Your task to perform on an android device: open sync settings in chrome Image 0: 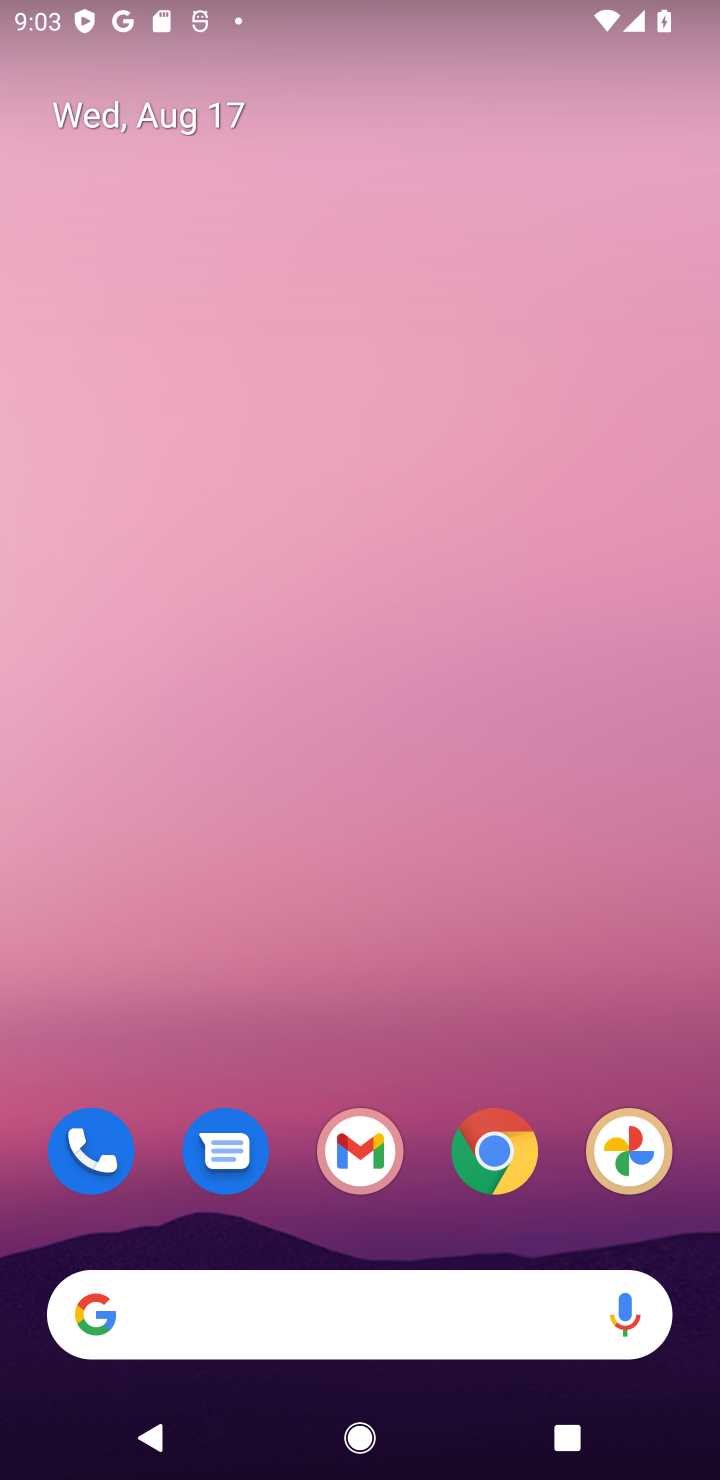
Step 0: click (493, 1154)
Your task to perform on an android device: open sync settings in chrome Image 1: 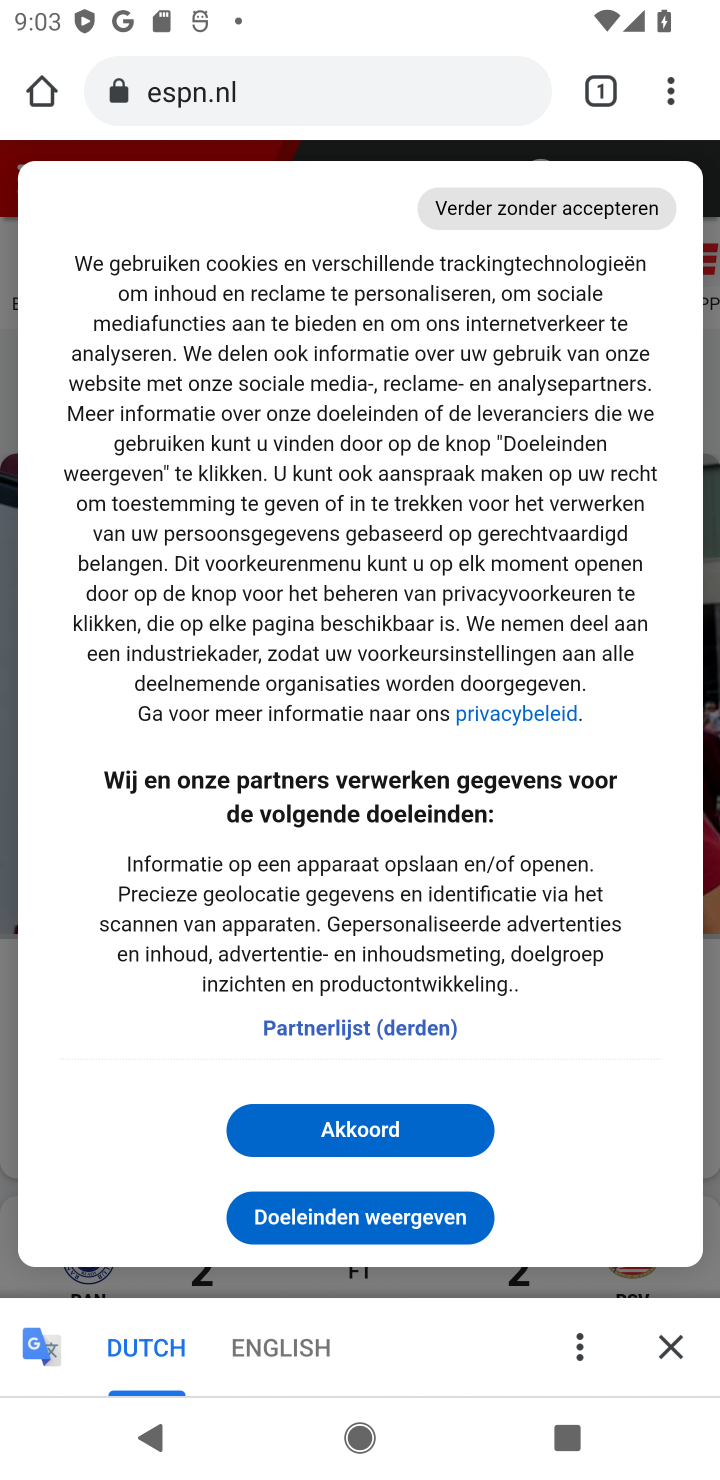
Step 1: click (677, 102)
Your task to perform on an android device: open sync settings in chrome Image 2: 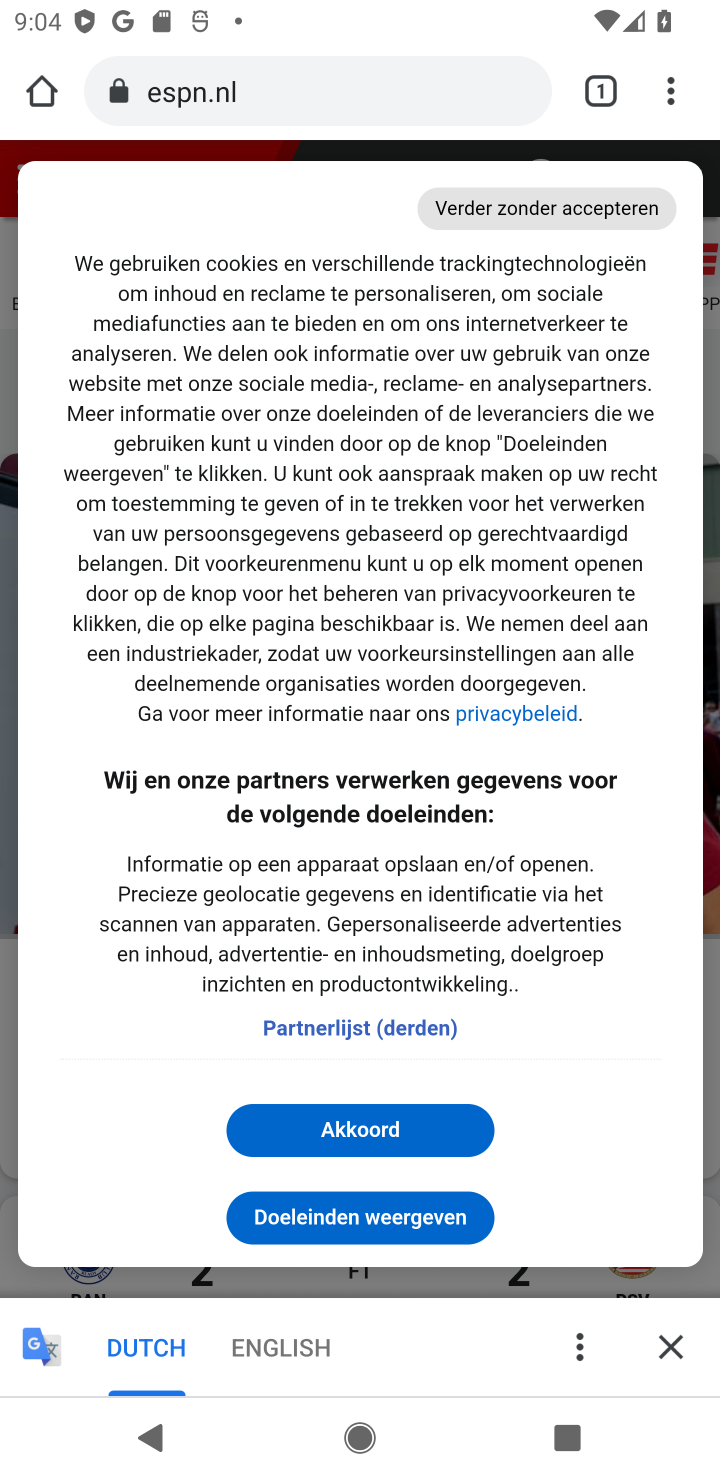
Step 2: click (666, 104)
Your task to perform on an android device: open sync settings in chrome Image 3: 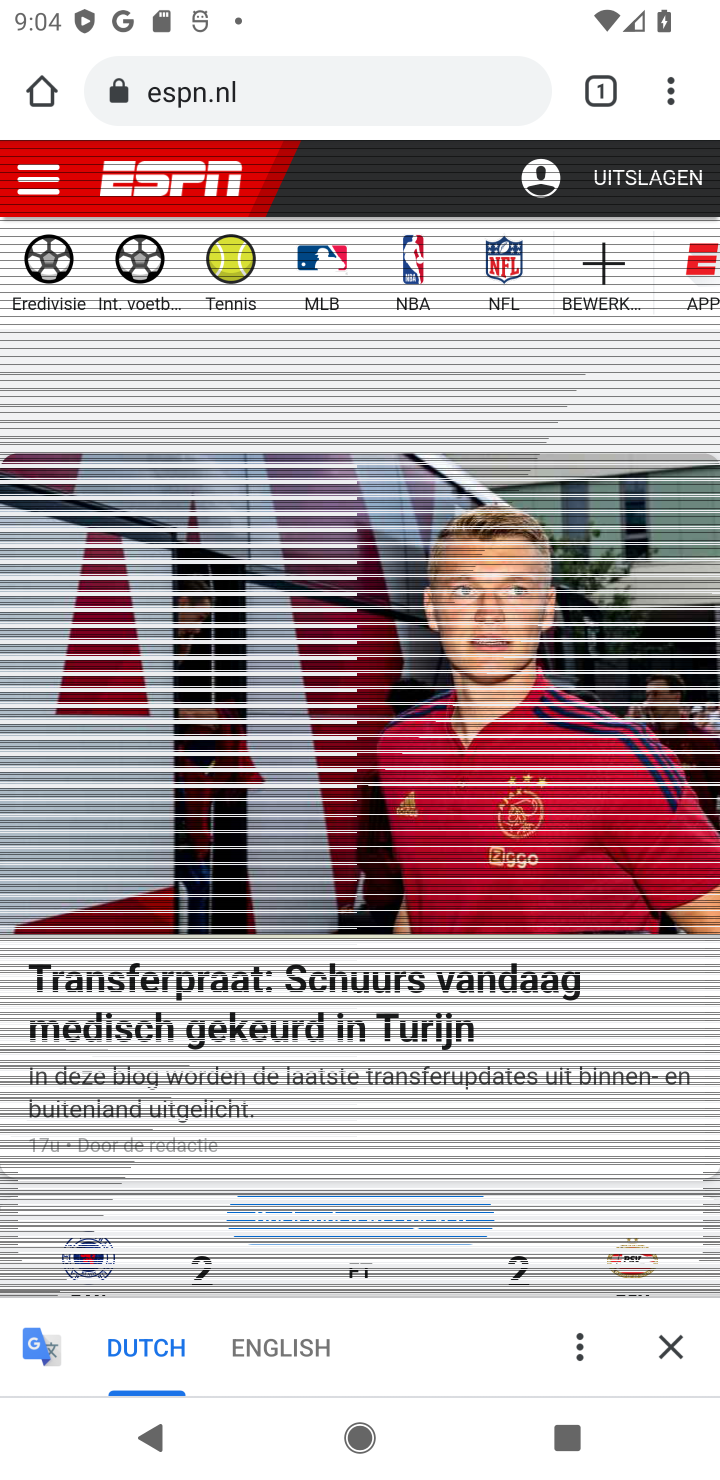
Step 3: click (660, 97)
Your task to perform on an android device: open sync settings in chrome Image 4: 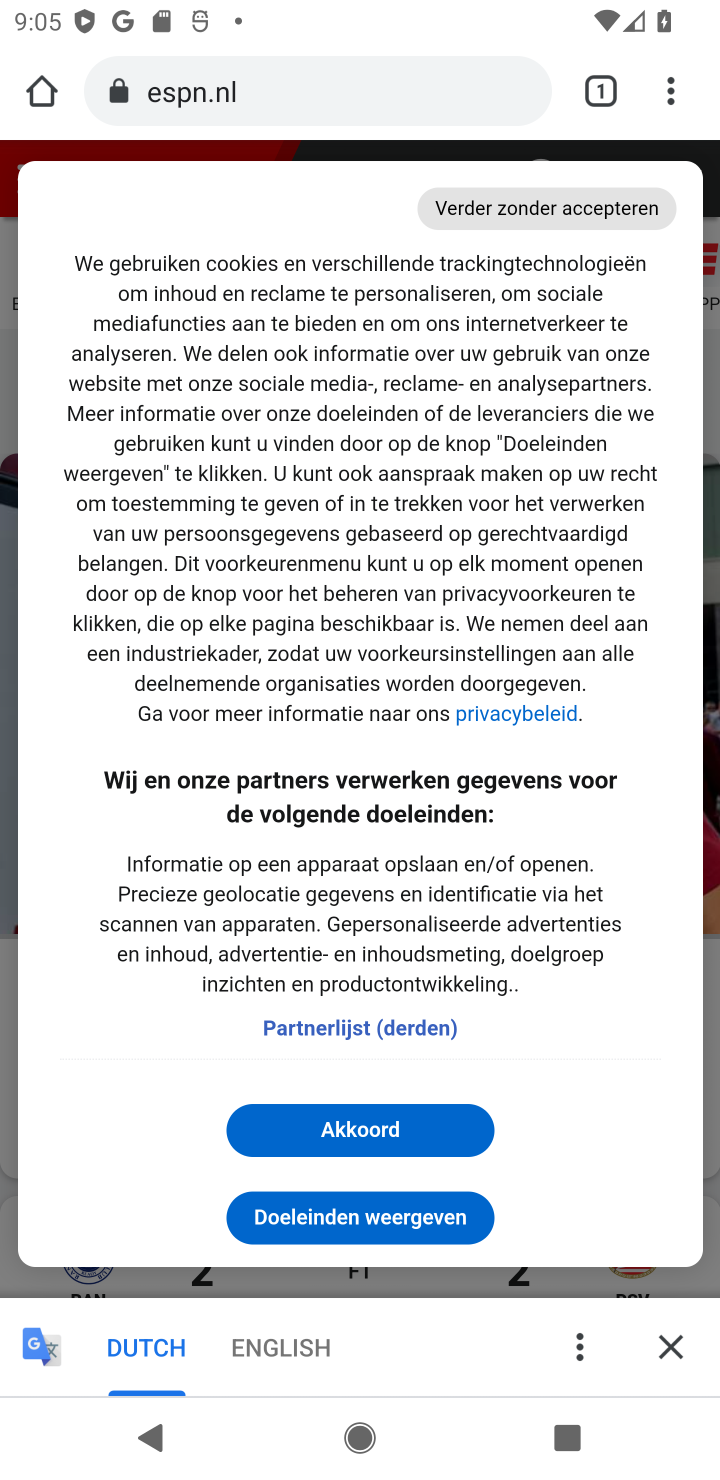
Step 4: click (662, 91)
Your task to perform on an android device: open sync settings in chrome Image 5: 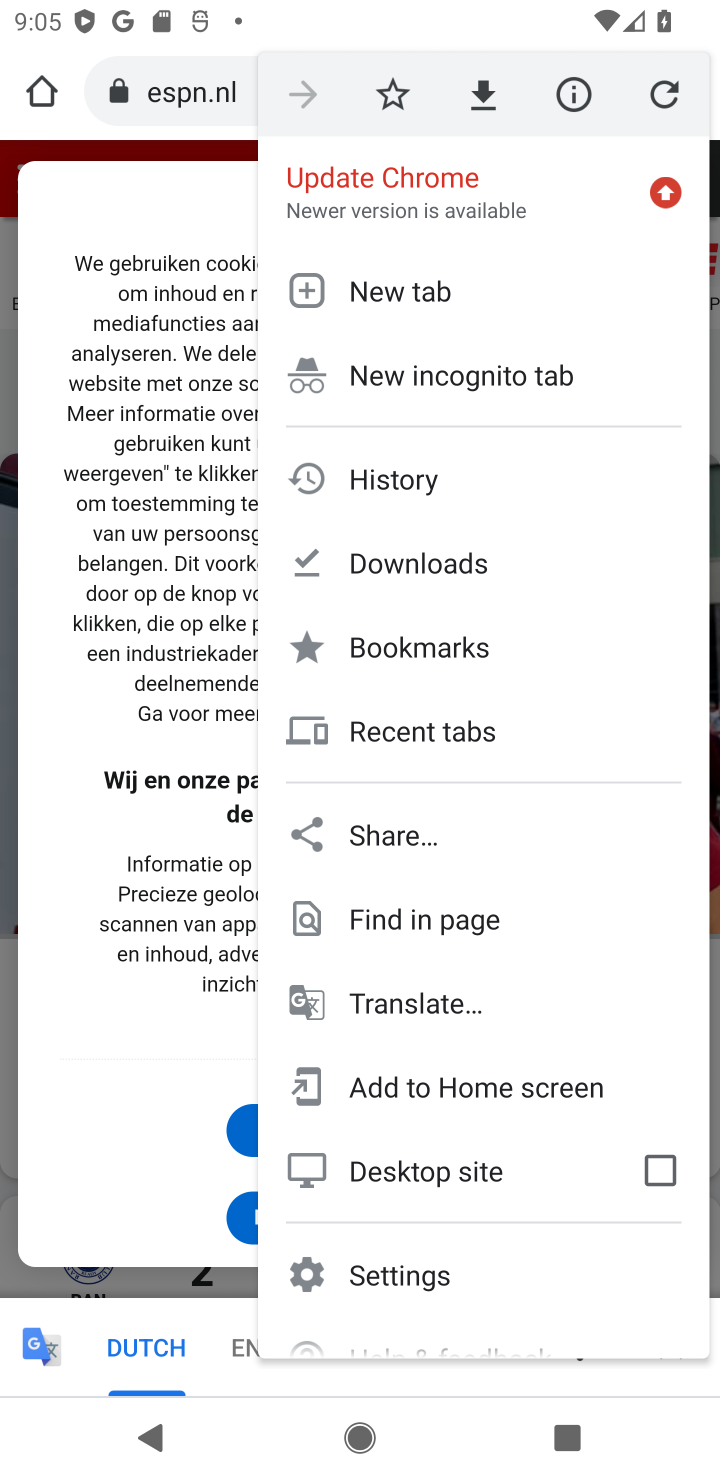
Step 5: click (445, 1271)
Your task to perform on an android device: open sync settings in chrome Image 6: 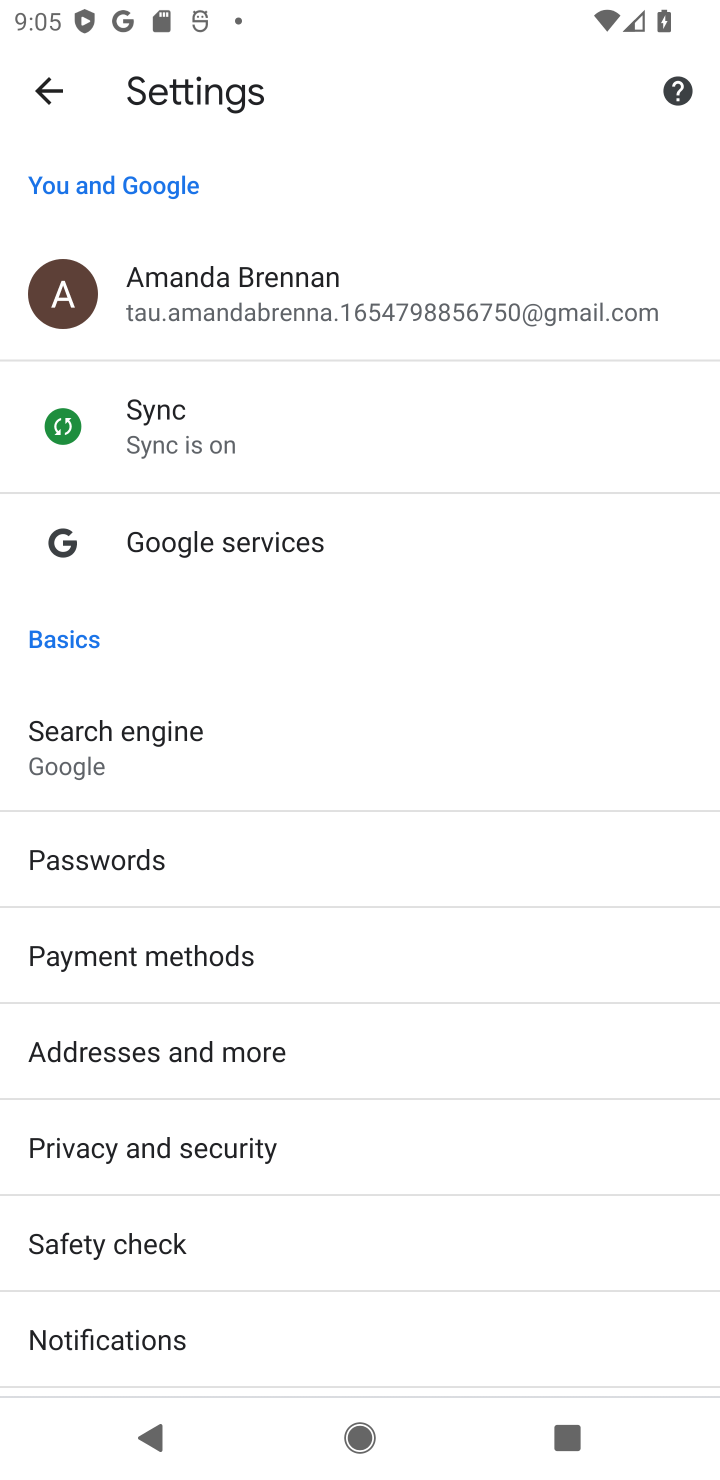
Step 6: click (178, 427)
Your task to perform on an android device: open sync settings in chrome Image 7: 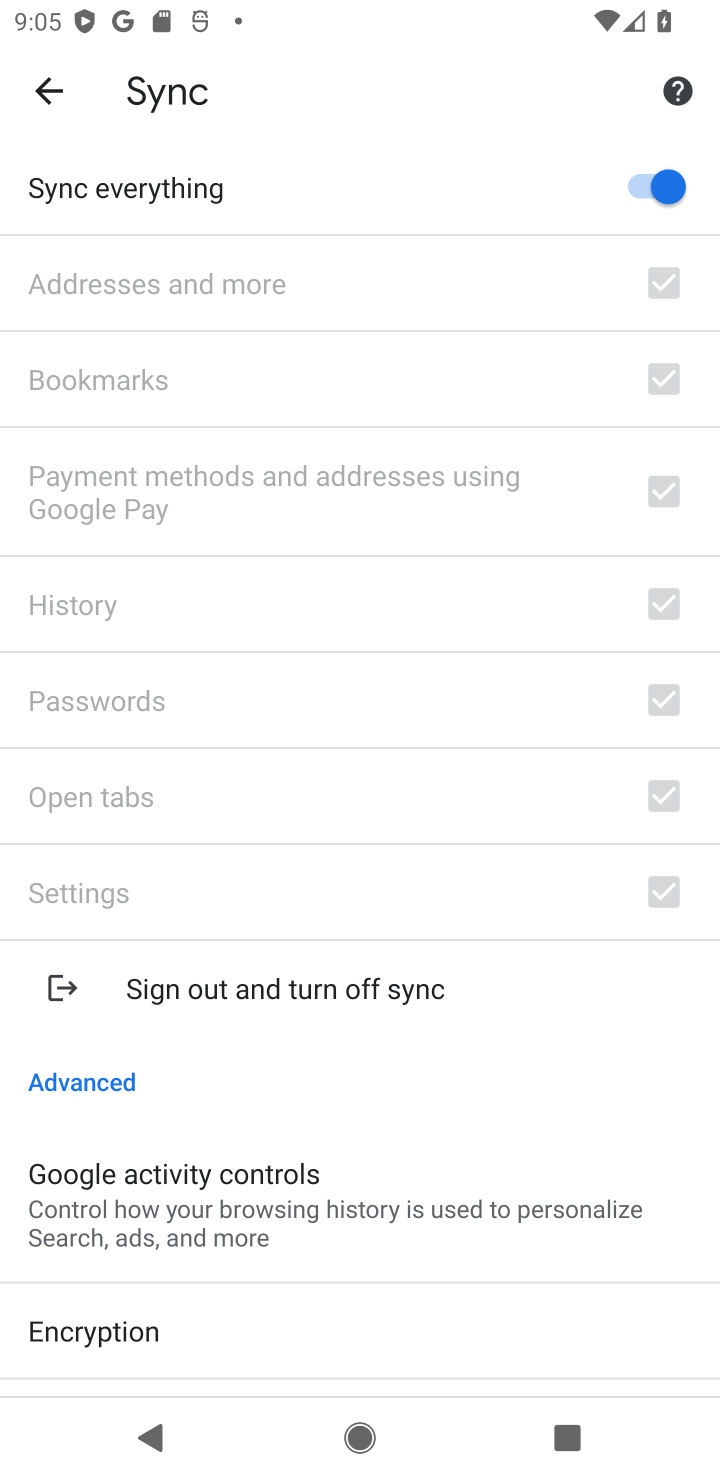
Step 7: task complete